Your task to perform on an android device: Open the web browser Image 0: 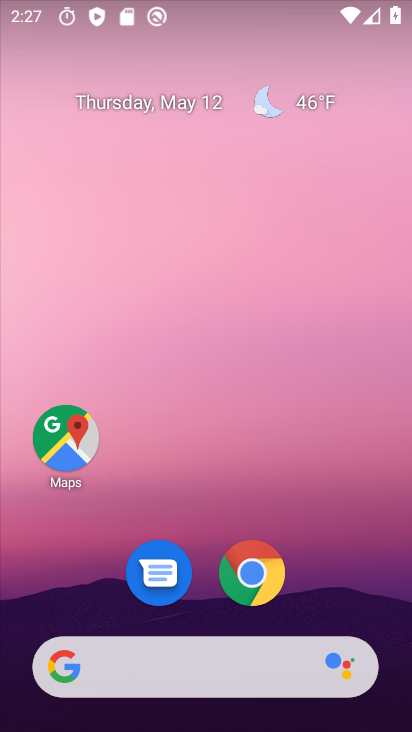
Step 0: click (165, 688)
Your task to perform on an android device: Open the web browser Image 1: 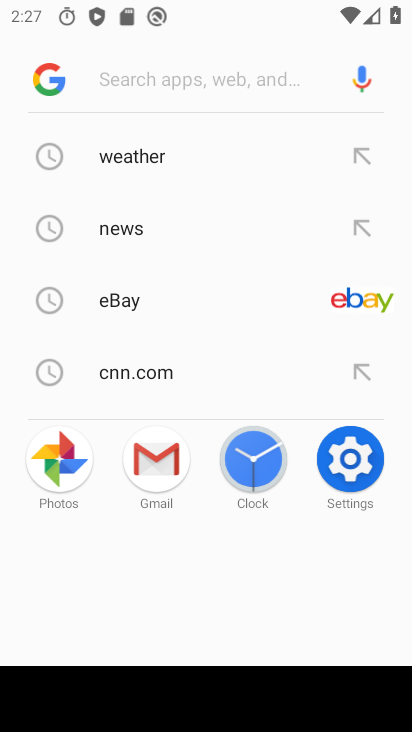
Step 1: task complete